Your task to perform on an android device: turn off location Image 0: 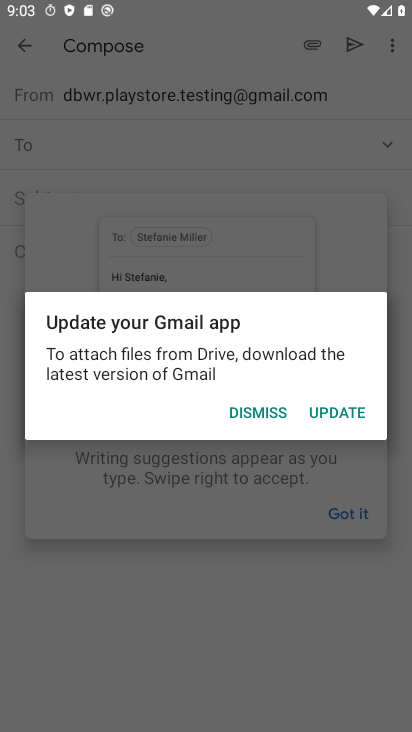
Step 0: click (277, 417)
Your task to perform on an android device: turn off location Image 1: 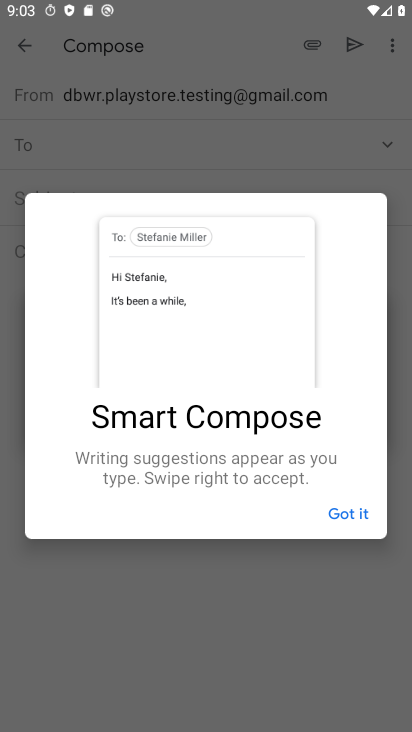
Step 1: click (359, 514)
Your task to perform on an android device: turn off location Image 2: 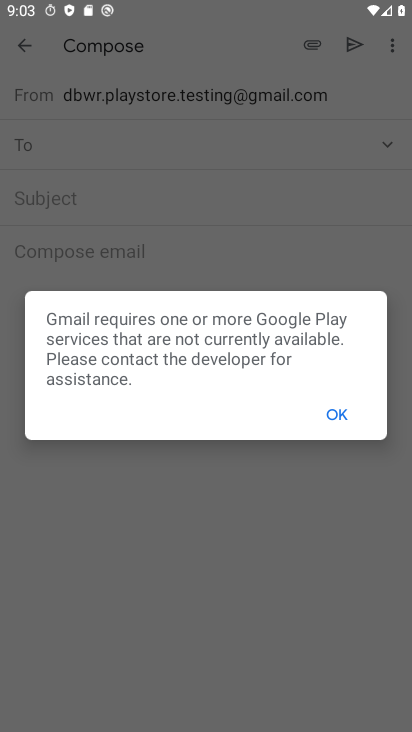
Step 2: click (332, 413)
Your task to perform on an android device: turn off location Image 3: 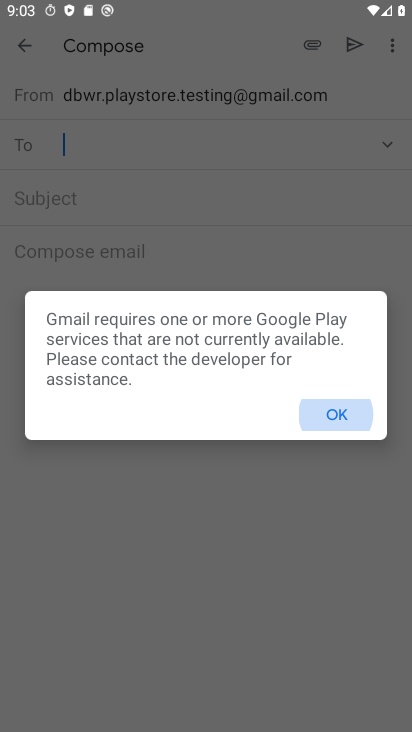
Step 3: click (342, 413)
Your task to perform on an android device: turn off location Image 4: 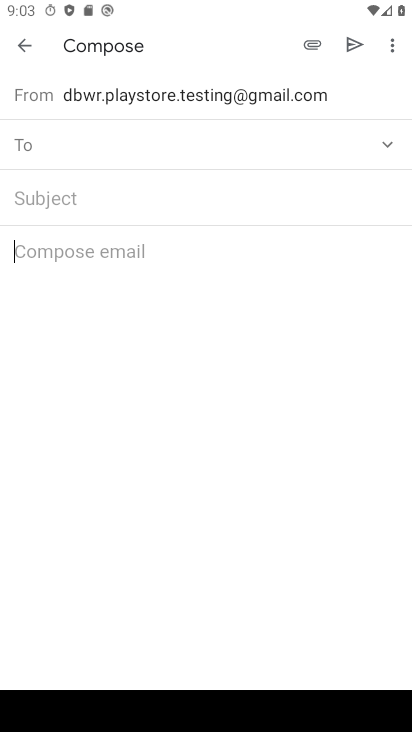
Step 4: click (29, 40)
Your task to perform on an android device: turn off location Image 5: 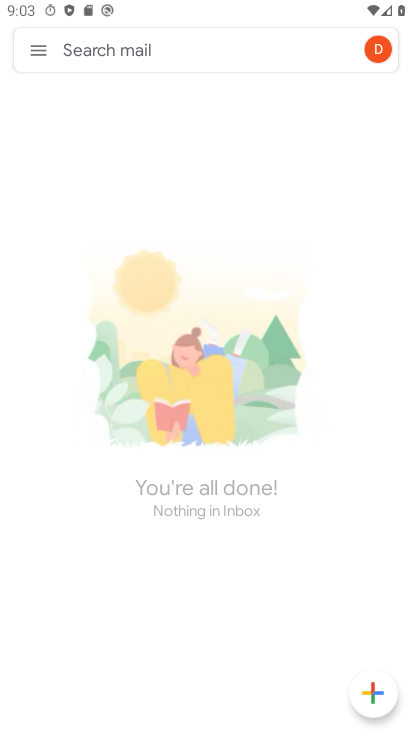
Step 5: press back button
Your task to perform on an android device: turn off location Image 6: 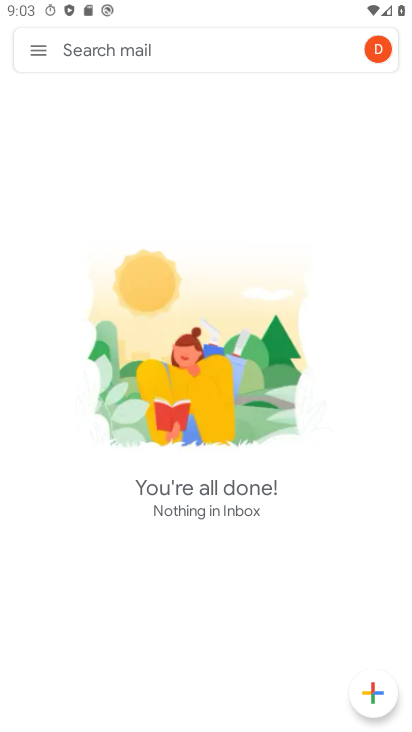
Step 6: press back button
Your task to perform on an android device: turn off location Image 7: 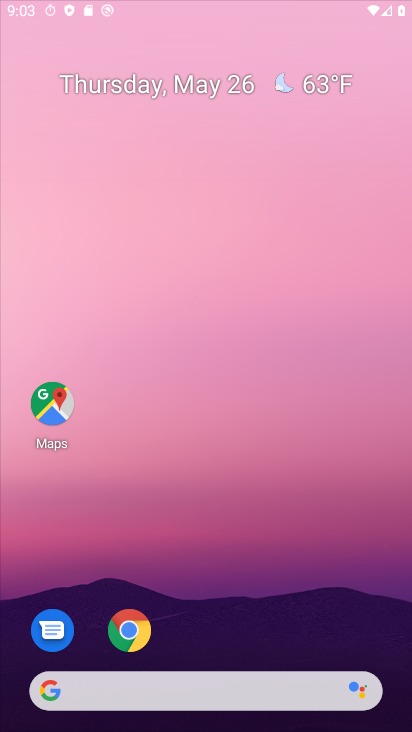
Step 7: press back button
Your task to perform on an android device: turn off location Image 8: 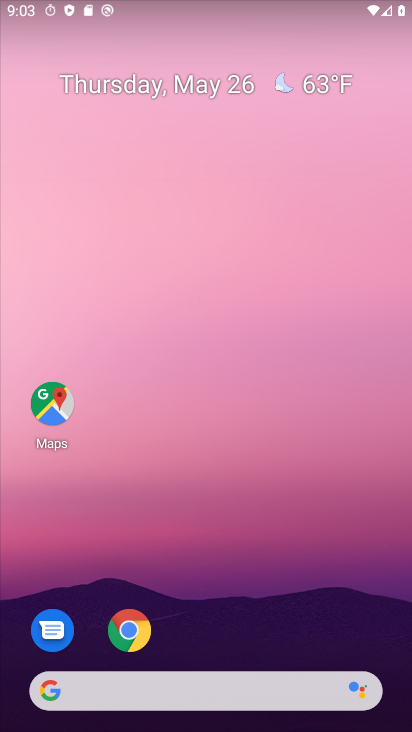
Step 8: press back button
Your task to perform on an android device: turn off location Image 9: 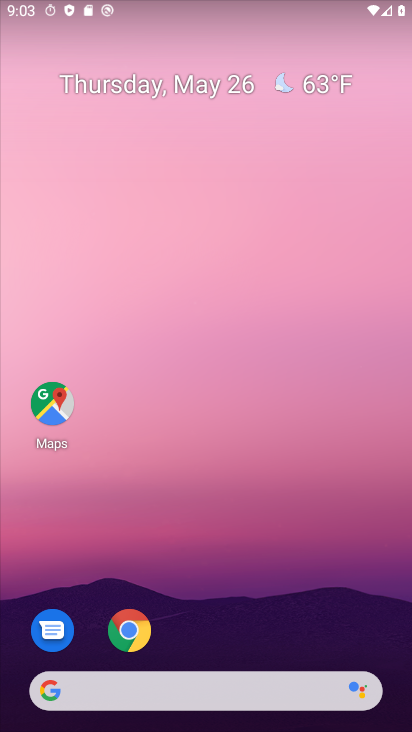
Step 9: drag from (261, 714) to (111, 226)
Your task to perform on an android device: turn off location Image 10: 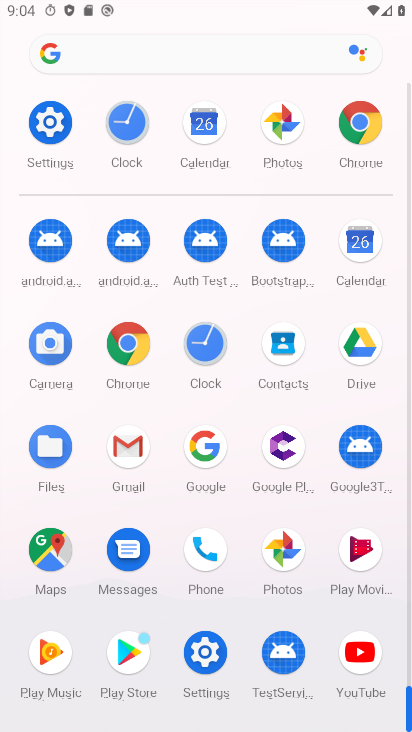
Step 10: click (58, 134)
Your task to perform on an android device: turn off location Image 11: 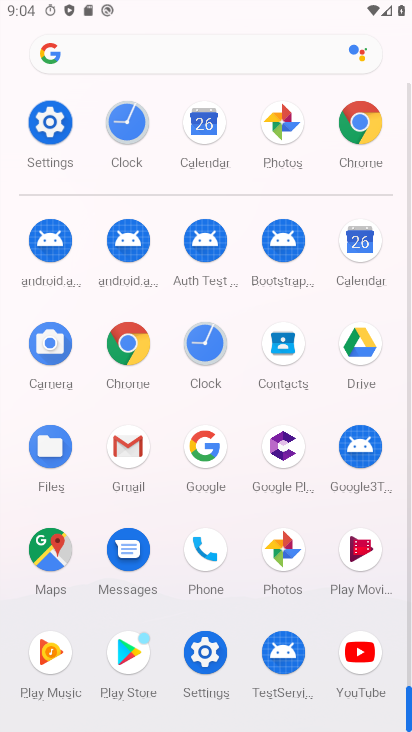
Step 11: click (58, 134)
Your task to perform on an android device: turn off location Image 12: 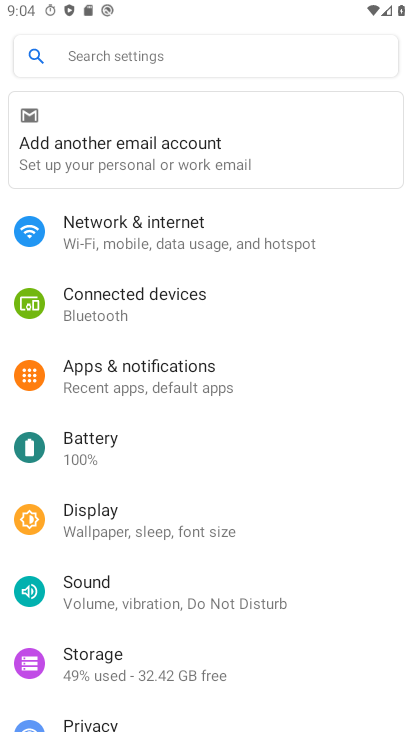
Step 12: drag from (200, 548) to (167, 146)
Your task to perform on an android device: turn off location Image 13: 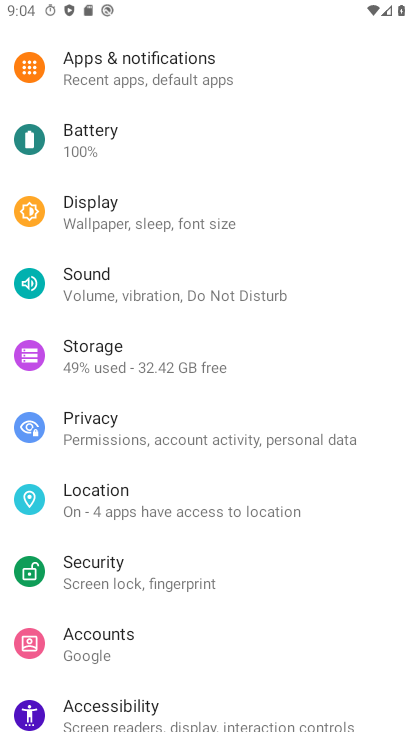
Step 13: click (97, 506)
Your task to perform on an android device: turn off location Image 14: 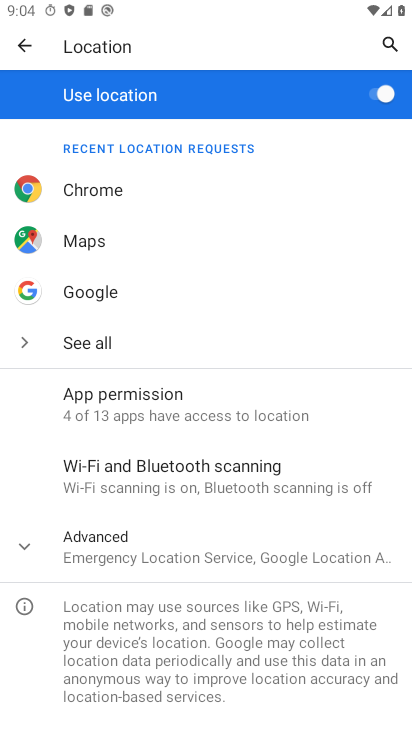
Step 14: click (380, 96)
Your task to perform on an android device: turn off location Image 15: 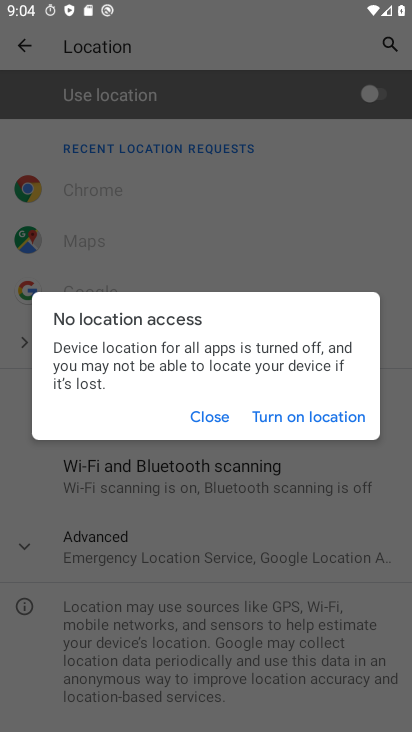
Step 15: task complete